Your task to perform on an android device: turn notification dots on Image 0: 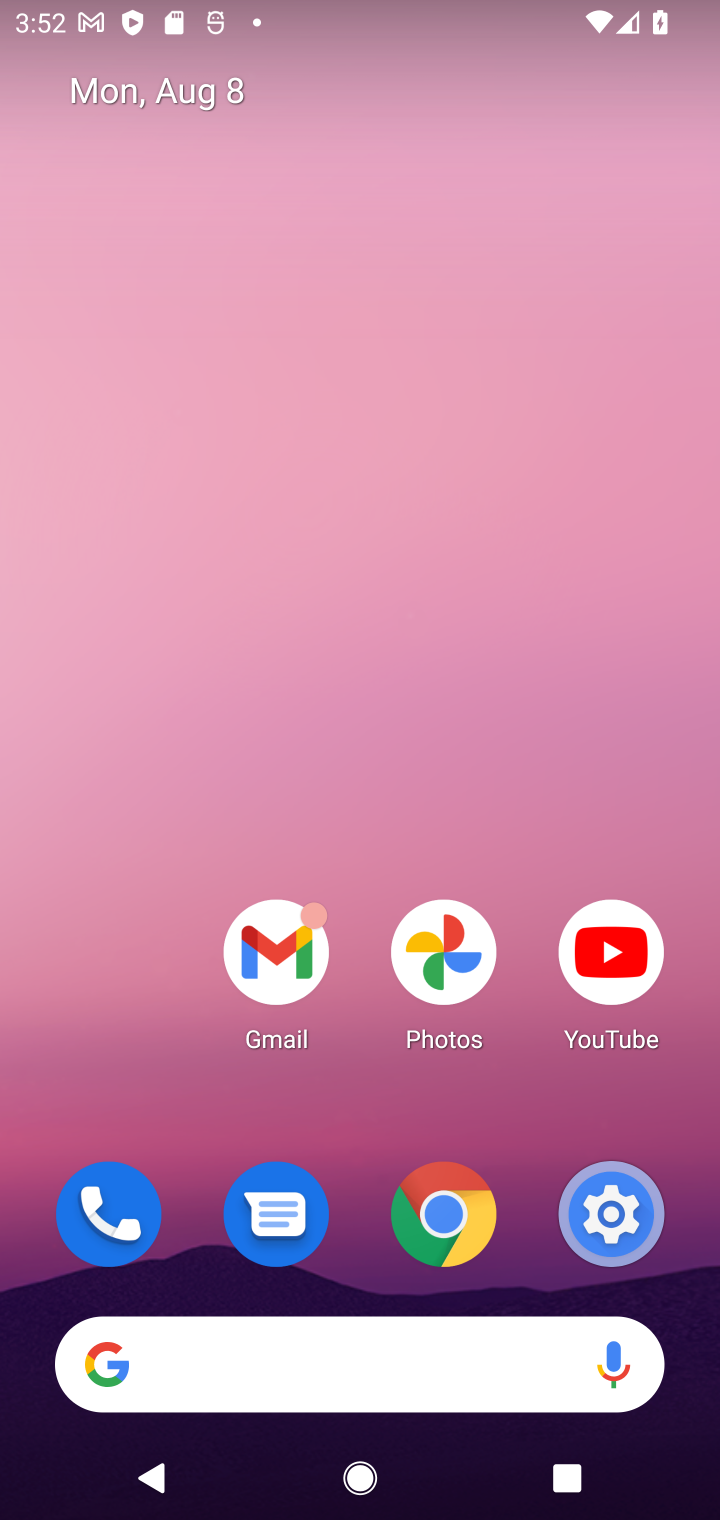
Step 0: drag from (392, 1289) to (519, 416)
Your task to perform on an android device: turn notification dots on Image 1: 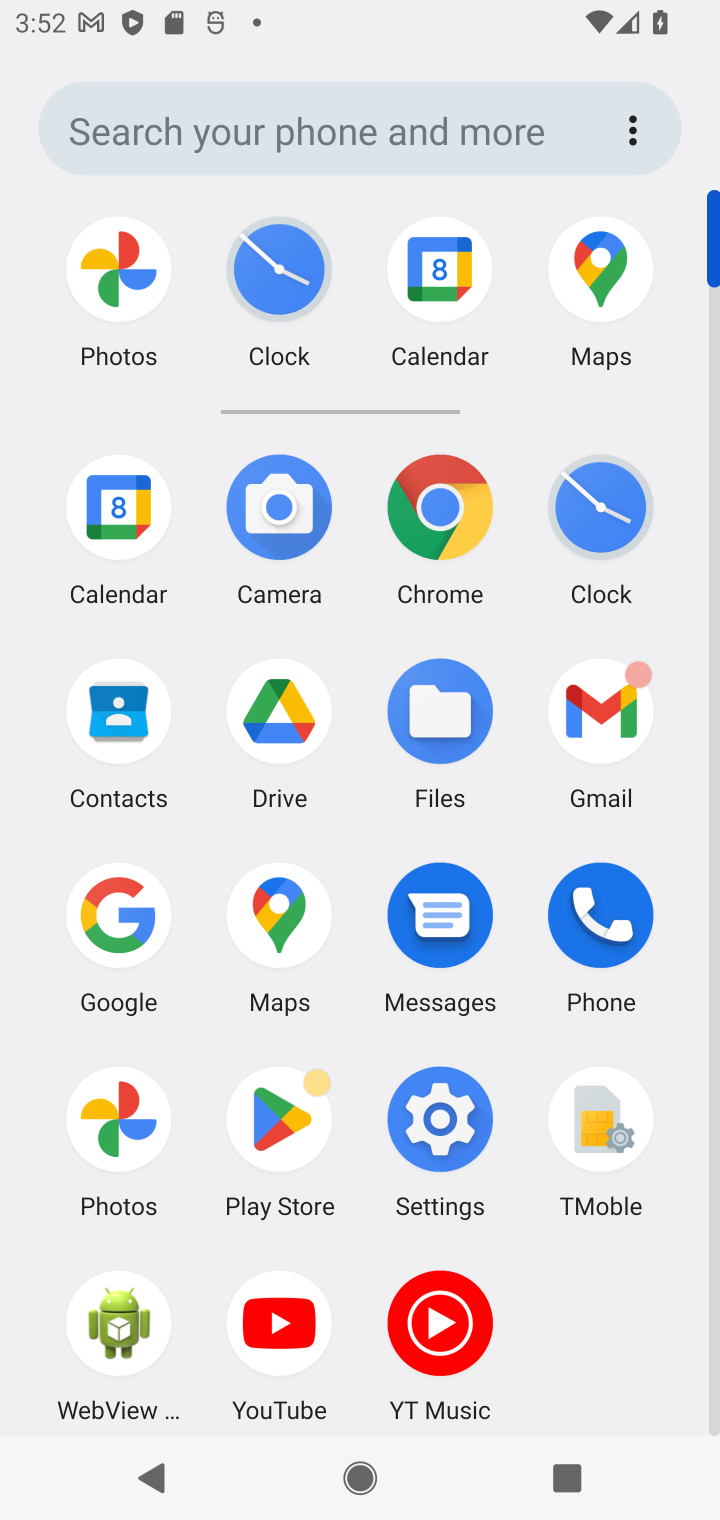
Step 1: click (432, 1111)
Your task to perform on an android device: turn notification dots on Image 2: 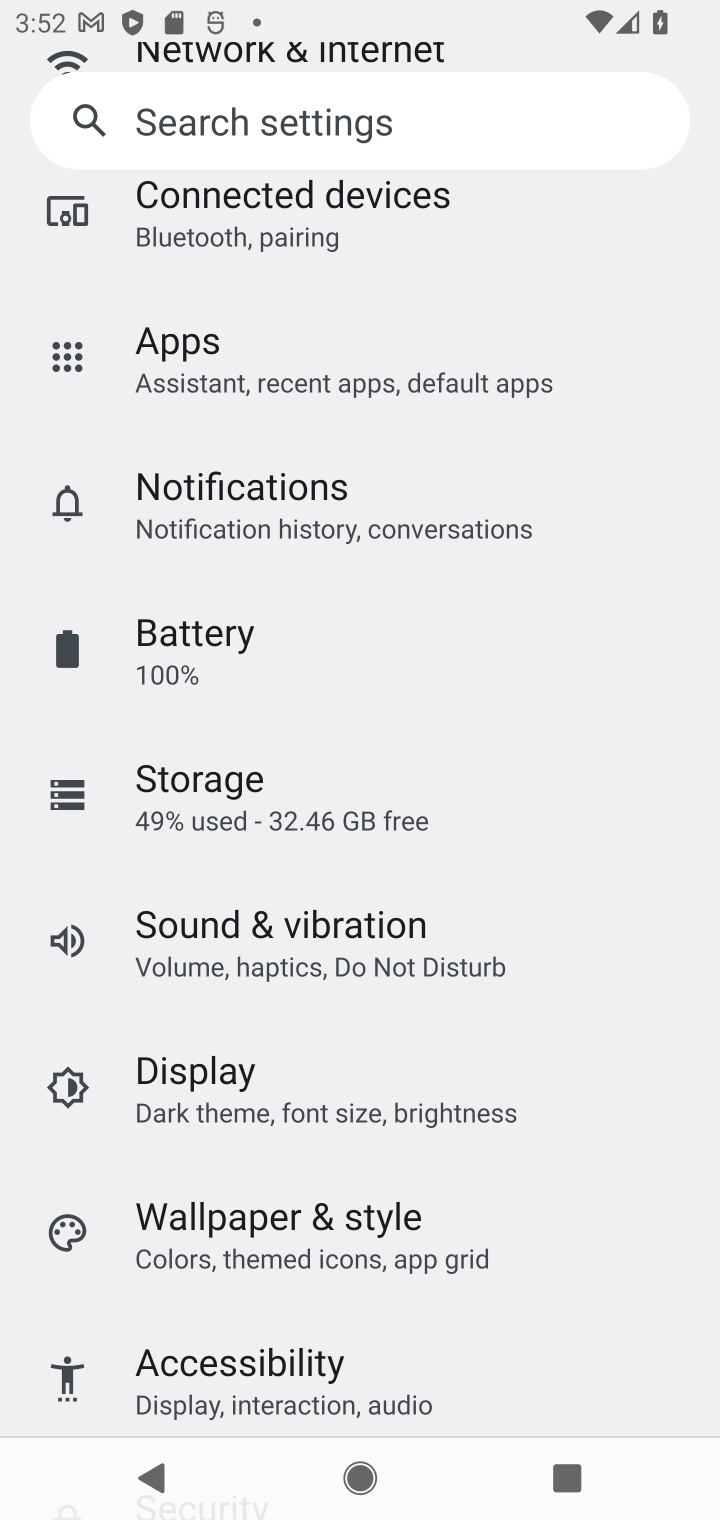
Step 2: click (232, 519)
Your task to perform on an android device: turn notification dots on Image 3: 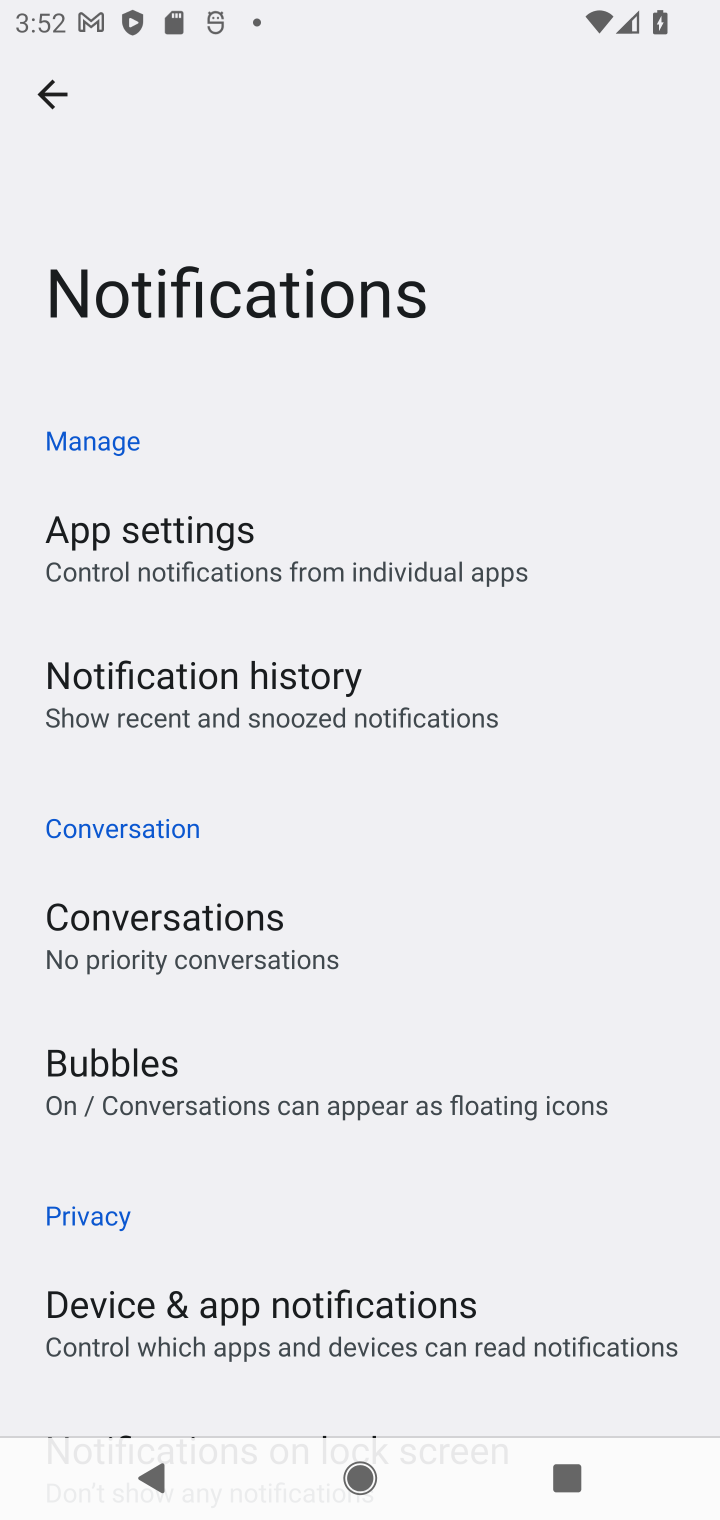
Step 3: task complete